Your task to perform on an android device: check out phone information Image 0: 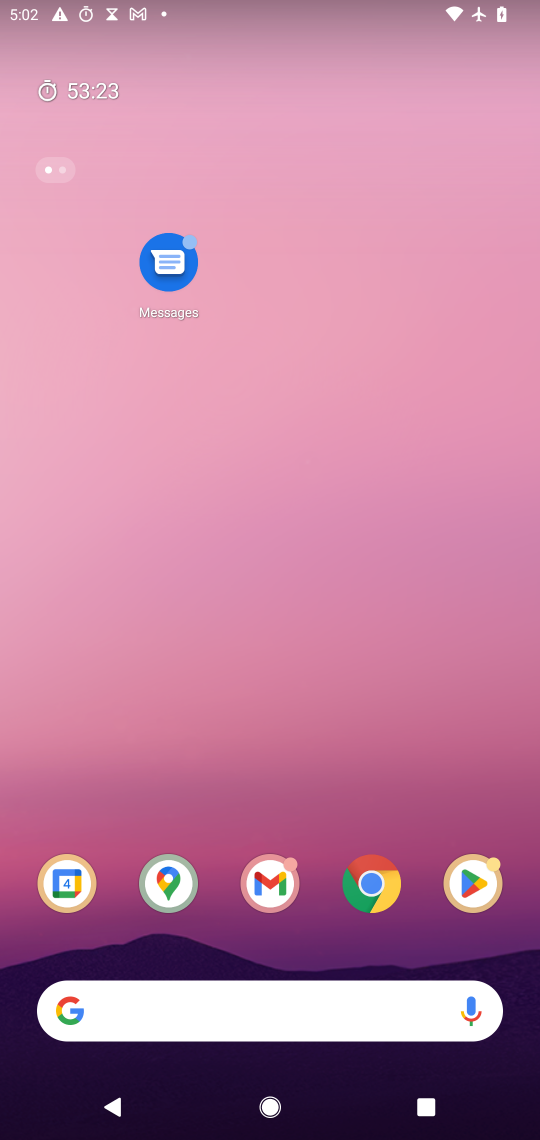
Step 0: drag from (341, 972) to (312, 63)
Your task to perform on an android device: check out phone information Image 1: 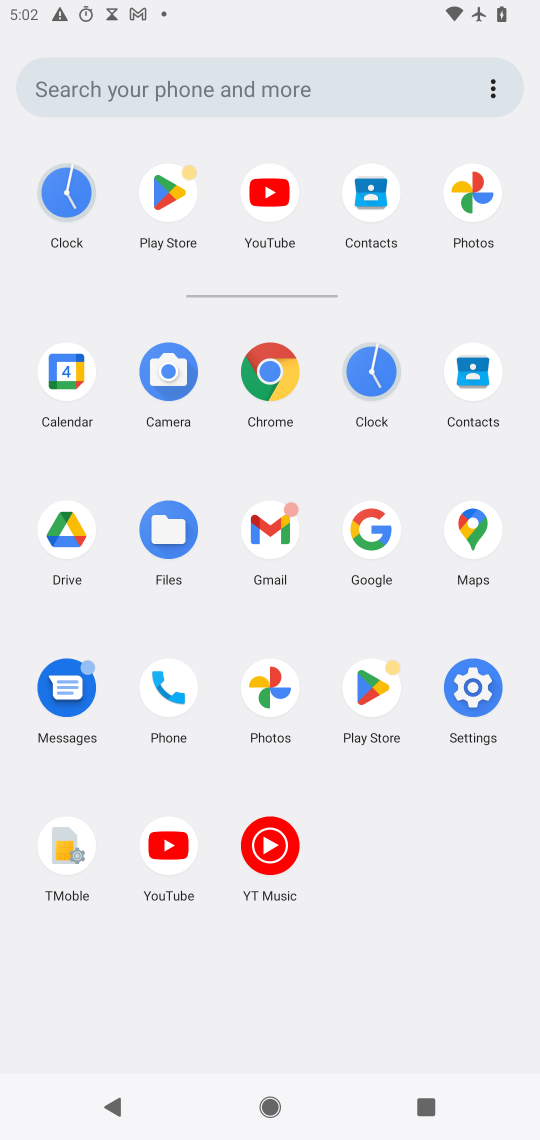
Step 1: click (469, 688)
Your task to perform on an android device: check out phone information Image 2: 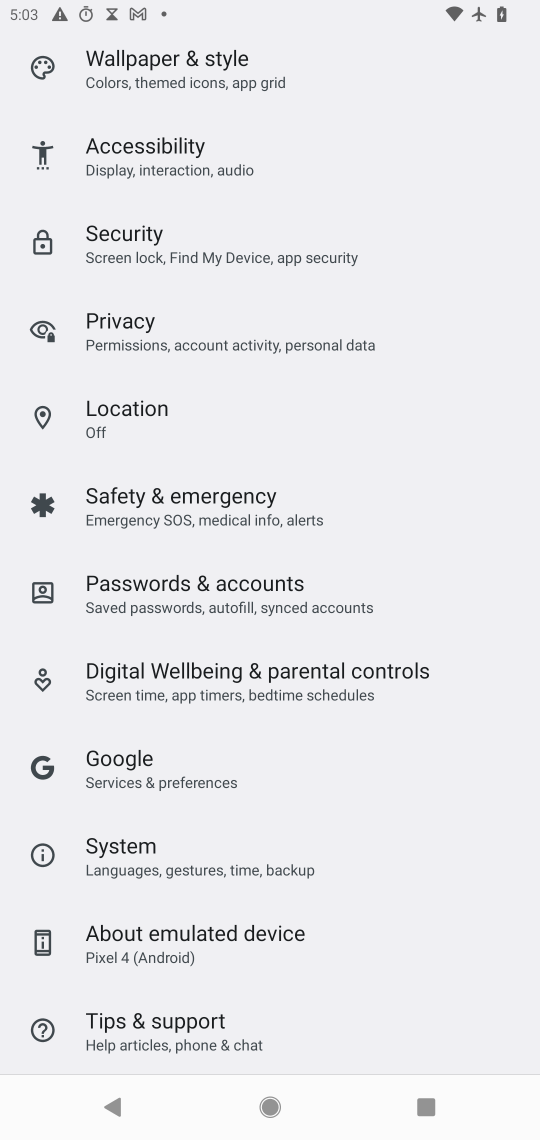
Step 2: drag from (287, 974) to (273, 265)
Your task to perform on an android device: check out phone information Image 3: 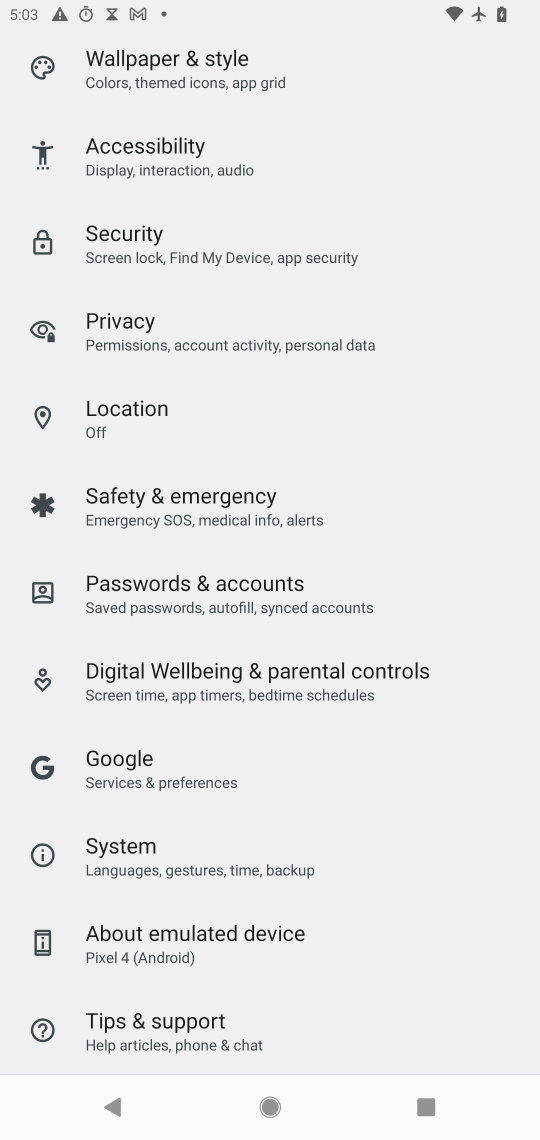
Step 3: click (182, 941)
Your task to perform on an android device: check out phone information Image 4: 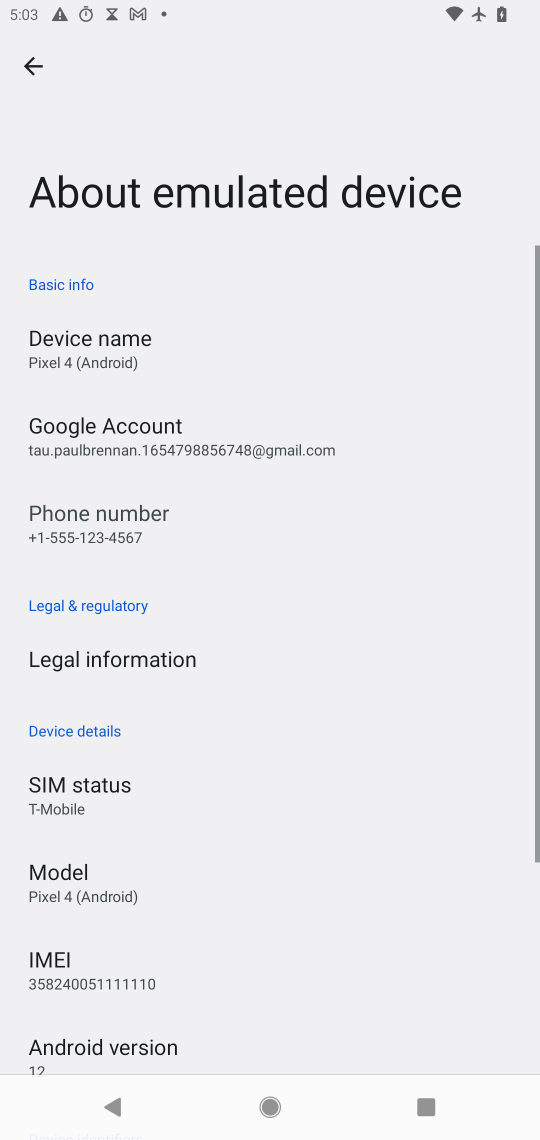
Step 4: task complete